Your task to perform on an android device: empty trash in google photos Image 0: 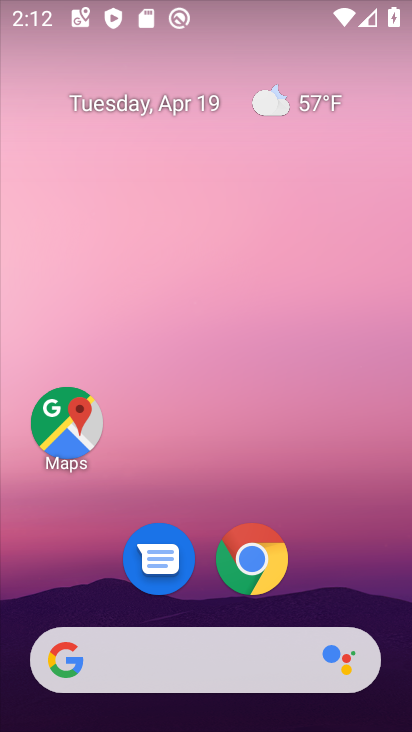
Step 0: drag from (209, 596) to (194, 122)
Your task to perform on an android device: empty trash in google photos Image 1: 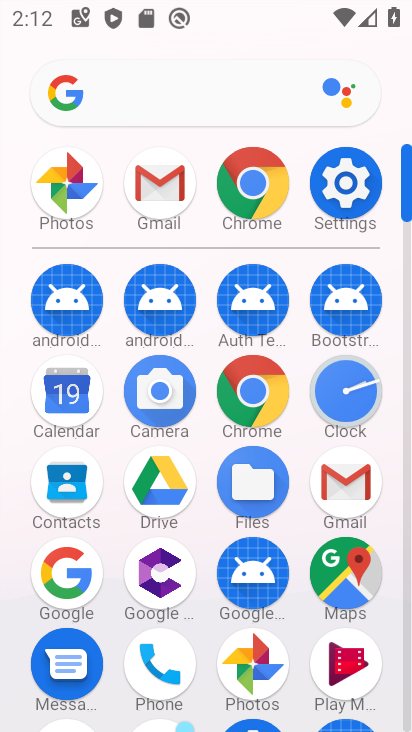
Step 1: click (248, 654)
Your task to perform on an android device: empty trash in google photos Image 2: 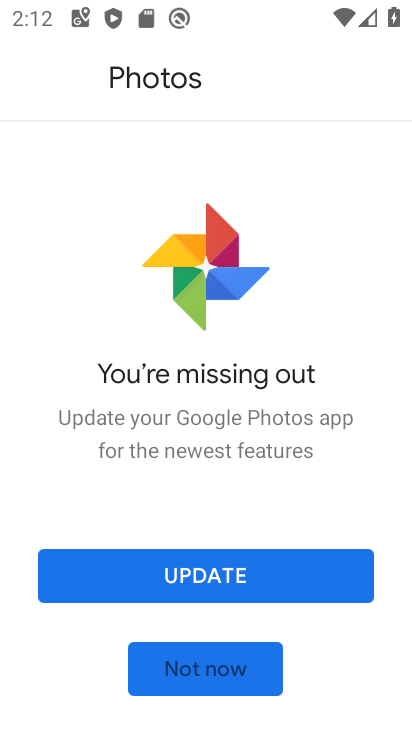
Step 2: click (205, 578)
Your task to perform on an android device: empty trash in google photos Image 3: 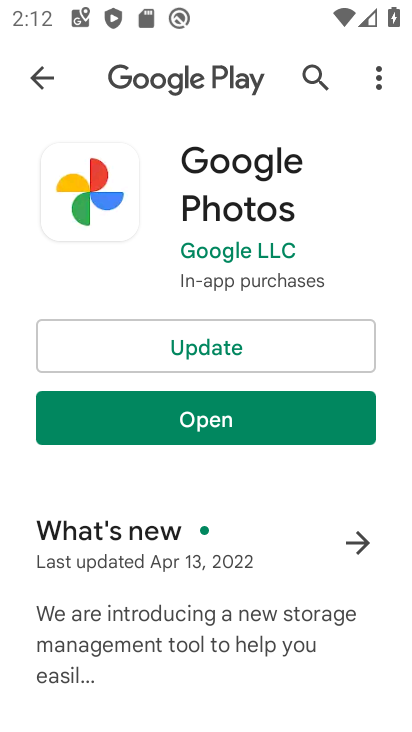
Step 3: click (215, 338)
Your task to perform on an android device: empty trash in google photos Image 4: 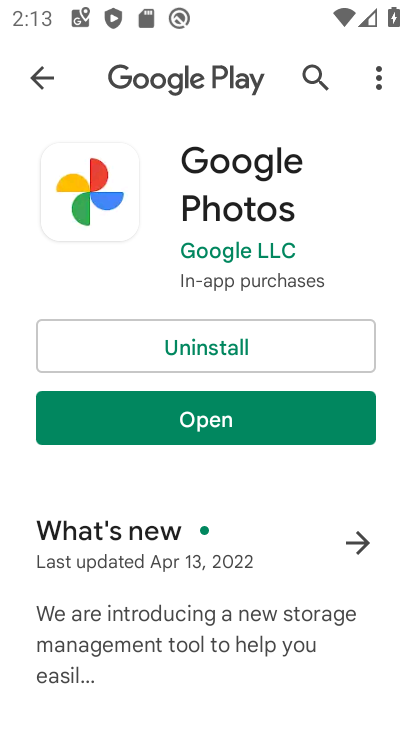
Step 4: click (210, 426)
Your task to perform on an android device: empty trash in google photos Image 5: 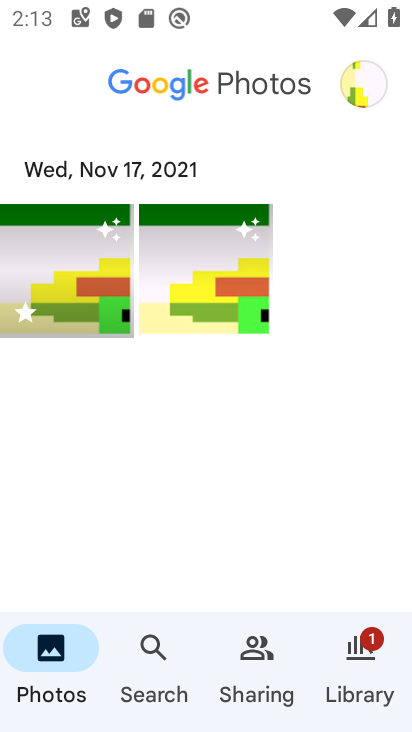
Step 5: click (360, 651)
Your task to perform on an android device: empty trash in google photos Image 6: 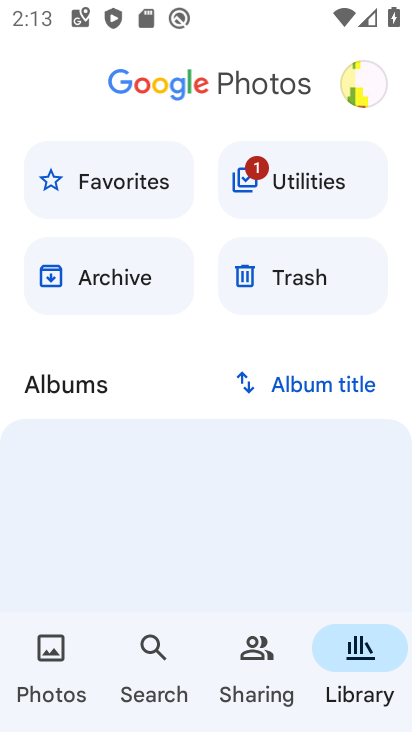
Step 6: click (268, 276)
Your task to perform on an android device: empty trash in google photos Image 7: 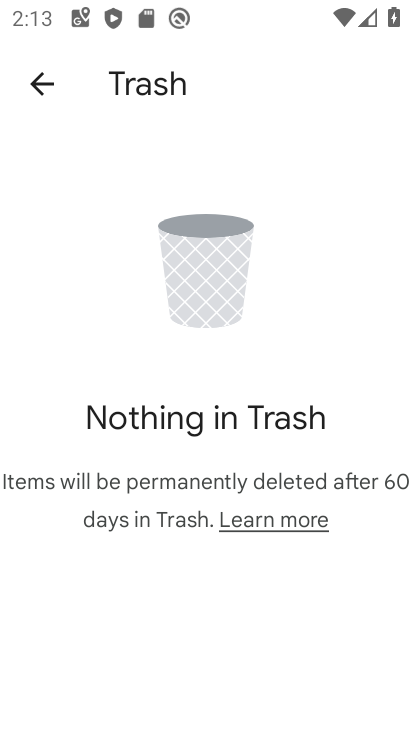
Step 7: task complete